Your task to perform on an android device: open the mobile data screen to see how much data has been used Image 0: 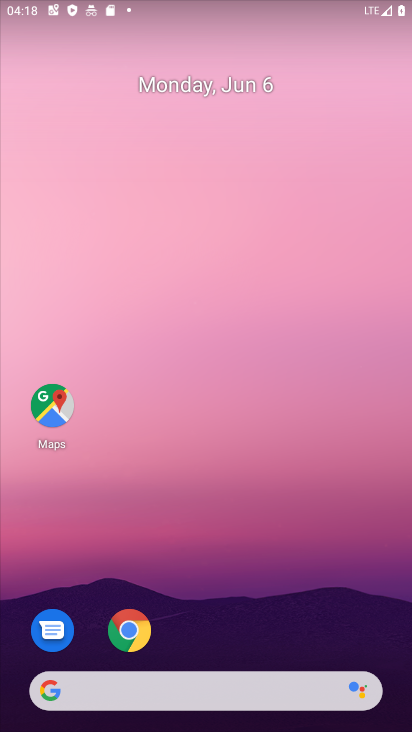
Step 0: drag from (326, 685) to (280, 35)
Your task to perform on an android device: open the mobile data screen to see how much data has been used Image 1: 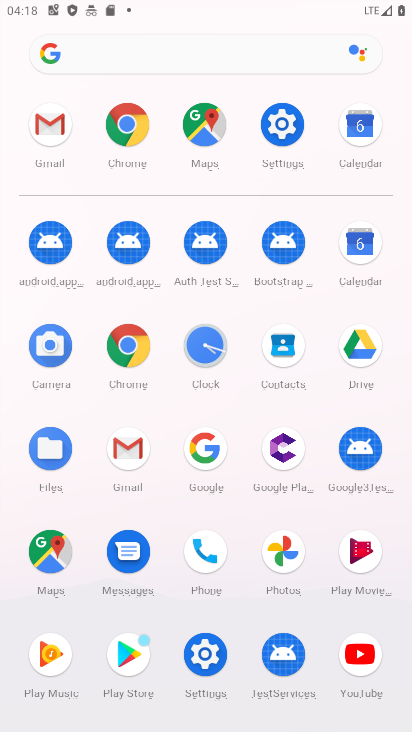
Step 1: drag from (332, 6) to (308, 376)
Your task to perform on an android device: open the mobile data screen to see how much data has been used Image 2: 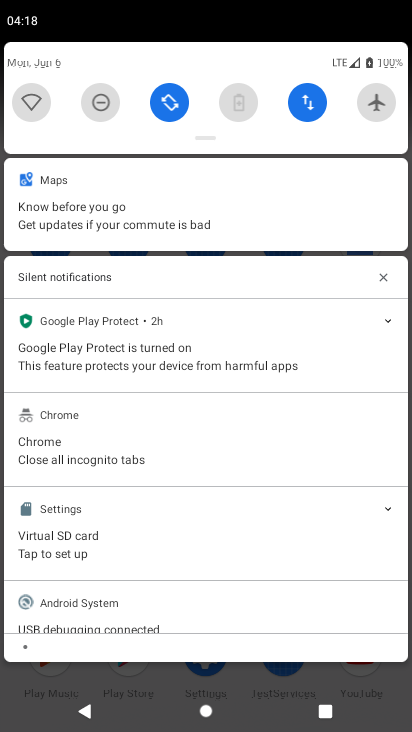
Step 2: click (299, 112)
Your task to perform on an android device: open the mobile data screen to see how much data has been used Image 3: 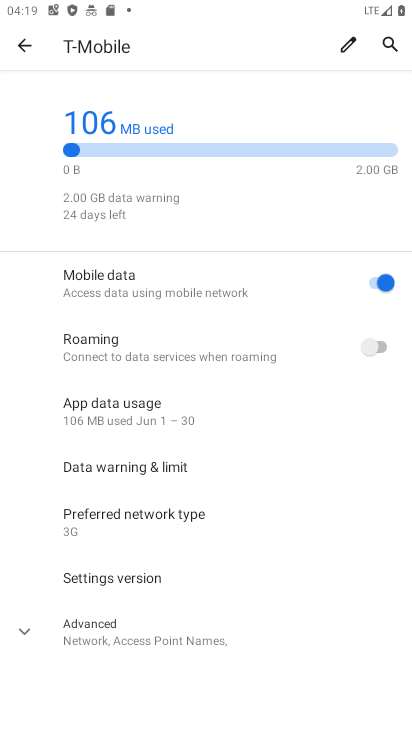
Step 3: task complete